Your task to perform on an android device: toggle priority inbox in the gmail app Image 0: 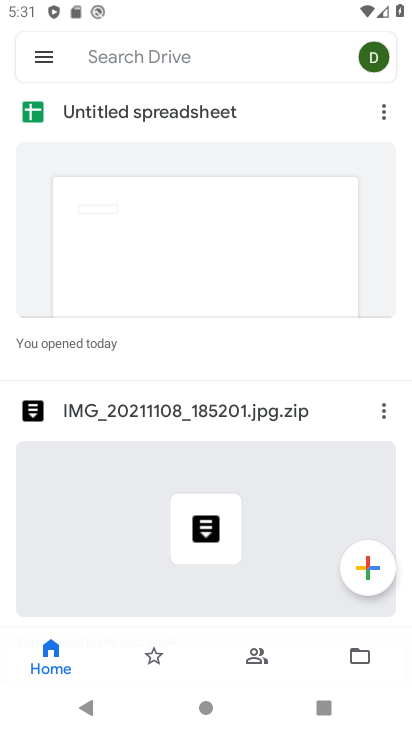
Step 0: press back button
Your task to perform on an android device: toggle priority inbox in the gmail app Image 1: 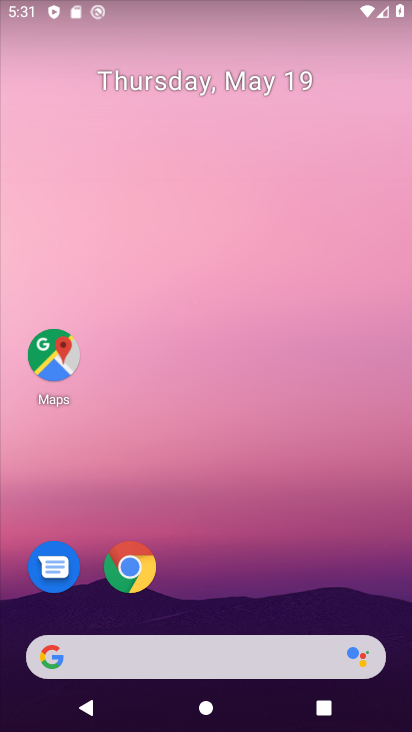
Step 1: drag from (281, 724) to (189, 155)
Your task to perform on an android device: toggle priority inbox in the gmail app Image 2: 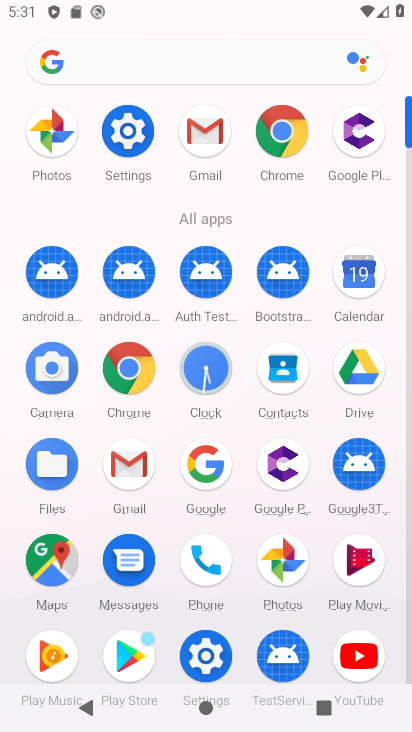
Step 2: click (117, 464)
Your task to perform on an android device: toggle priority inbox in the gmail app Image 3: 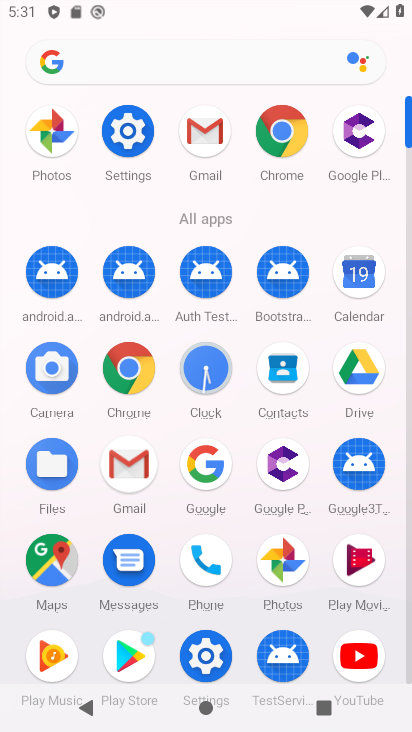
Step 3: click (131, 467)
Your task to perform on an android device: toggle priority inbox in the gmail app Image 4: 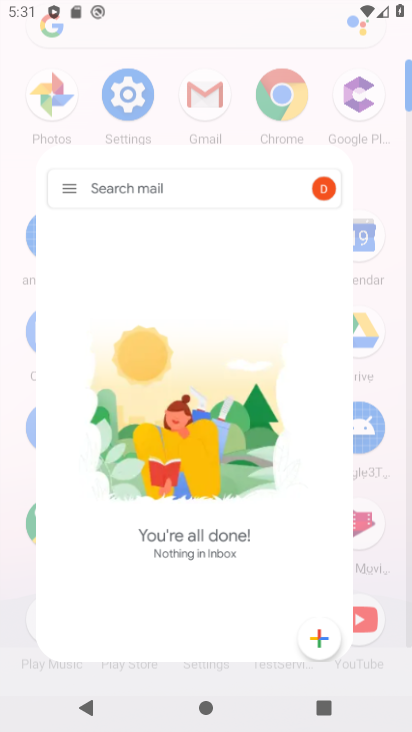
Step 4: click (132, 467)
Your task to perform on an android device: toggle priority inbox in the gmail app Image 5: 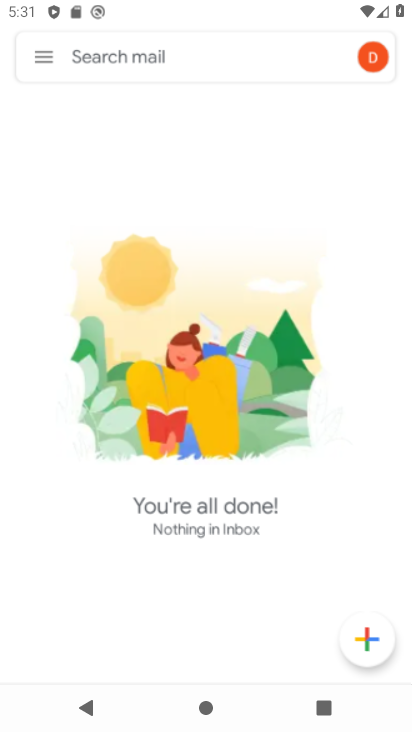
Step 5: click (132, 467)
Your task to perform on an android device: toggle priority inbox in the gmail app Image 6: 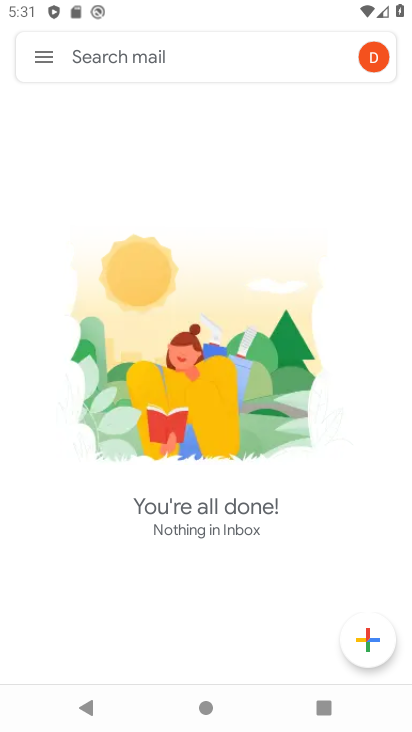
Step 6: click (39, 69)
Your task to perform on an android device: toggle priority inbox in the gmail app Image 7: 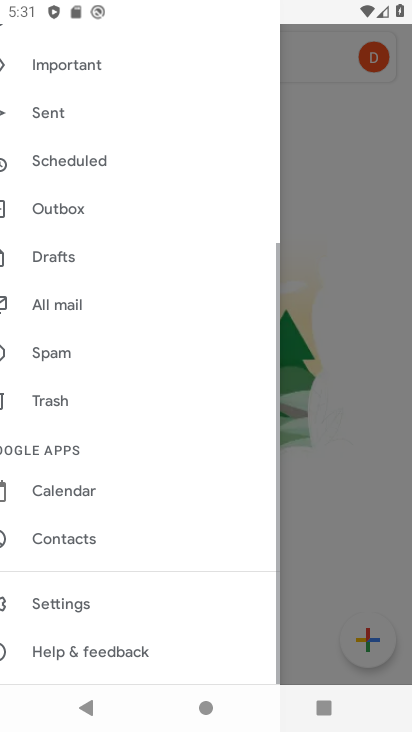
Step 7: click (39, 67)
Your task to perform on an android device: toggle priority inbox in the gmail app Image 8: 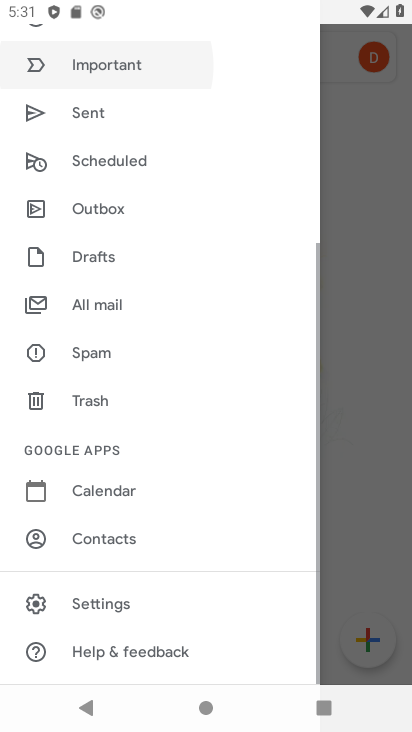
Step 8: drag from (40, 66) to (75, 382)
Your task to perform on an android device: toggle priority inbox in the gmail app Image 9: 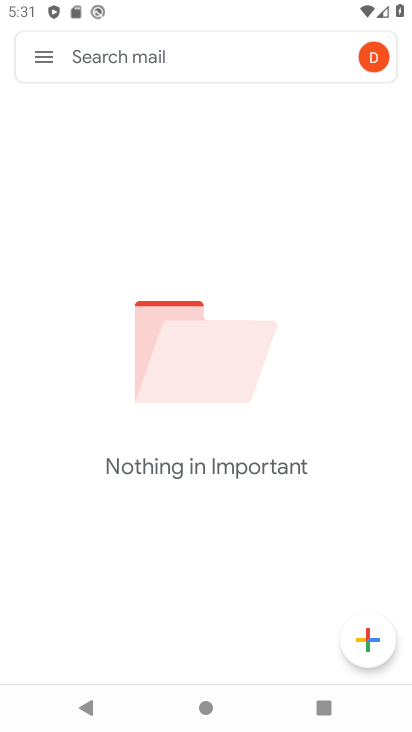
Step 9: click (36, 65)
Your task to perform on an android device: toggle priority inbox in the gmail app Image 10: 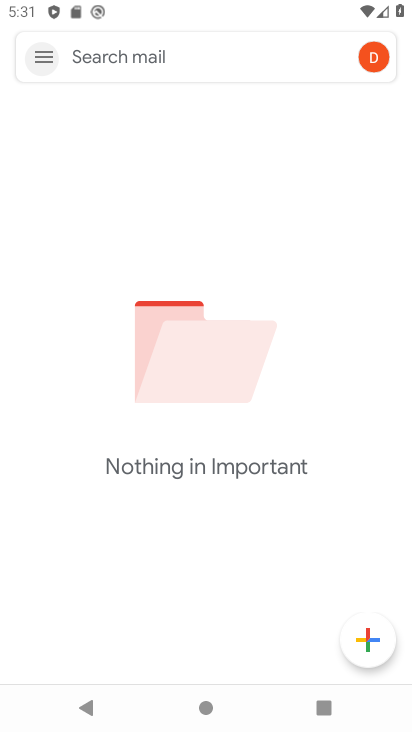
Step 10: click (42, 64)
Your task to perform on an android device: toggle priority inbox in the gmail app Image 11: 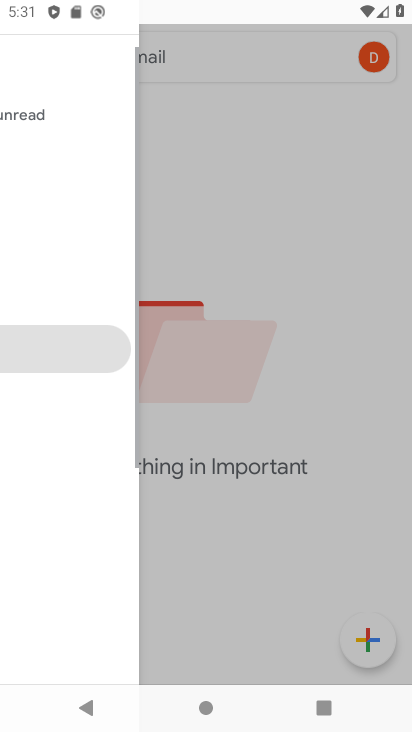
Step 11: click (43, 64)
Your task to perform on an android device: toggle priority inbox in the gmail app Image 12: 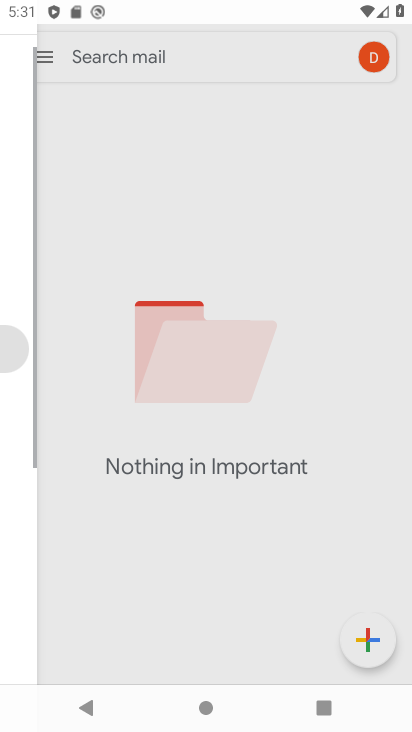
Step 12: click (44, 64)
Your task to perform on an android device: toggle priority inbox in the gmail app Image 13: 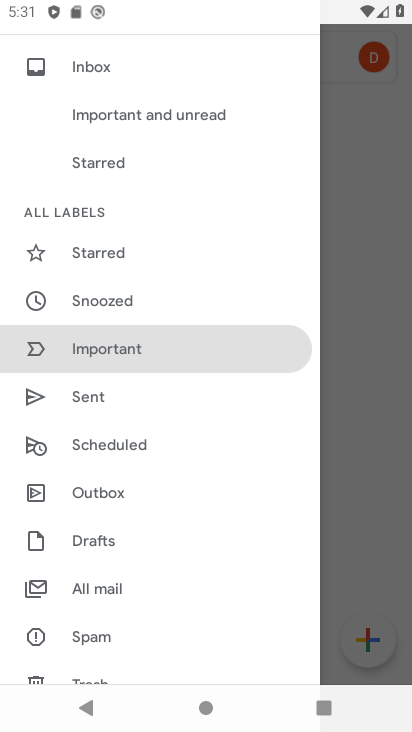
Step 13: drag from (124, 470) to (93, 83)
Your task to perform on an android device: toggle priority inbox in the gmail app Image 14: 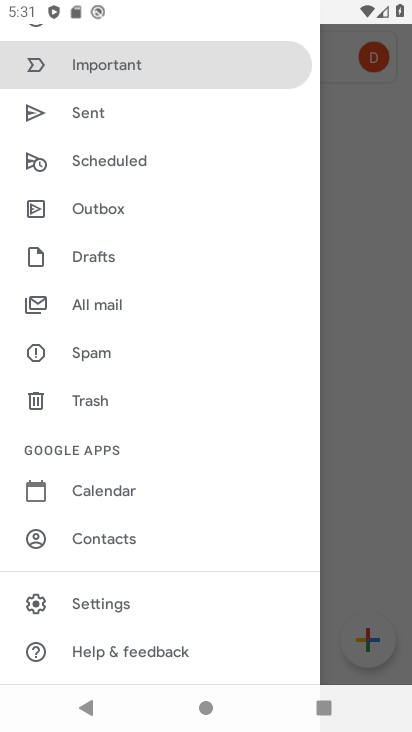
Step 14: click (116, 601)
Your task to perform on an android device: toggle priority inbox in the gmail app Image 15: 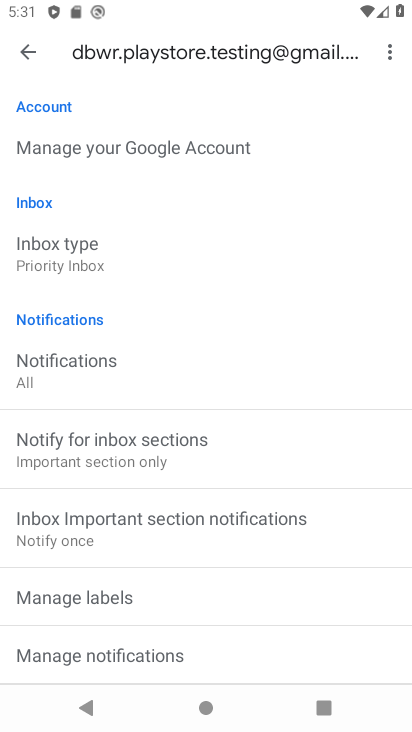
Step 15: click (63, 259)
Your task to perform on an android device: toggle priority inbox in the gmail app Image 16: 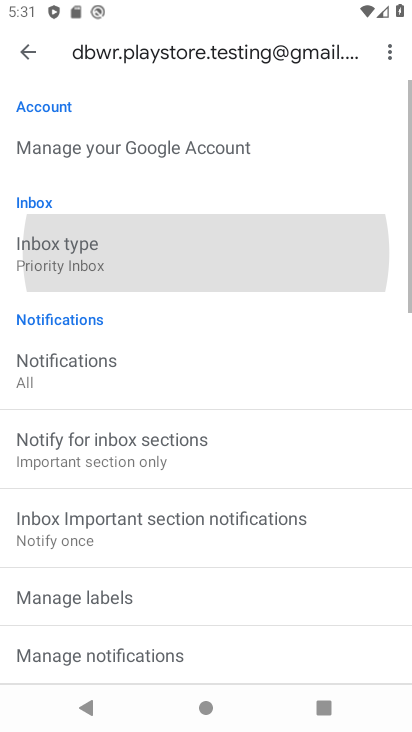
Step 16: click (73, 259)
Your task to perform on an android device: toggle priority inbox in the gmail app Image 17: 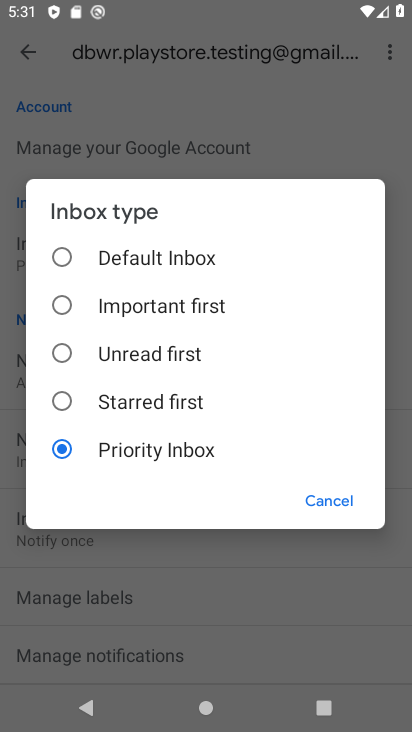
Step 17: click (327, 501)
Your task to perform on an android device: toggle priority inbox in the gmail app Image 18: 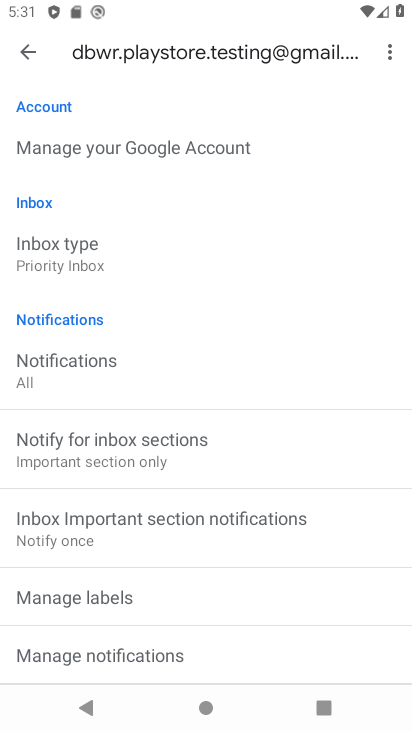
Step 18: click (23, 53)
Your task to perform on an android device: toggle priority inbox in the gmail app Image 19: 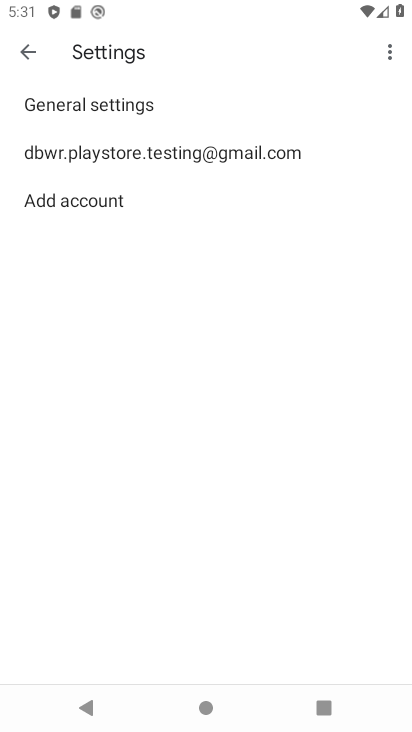
Step 19: press back button
Your task to perform on an android device: toggle priority inbox in the gmail app Image 20: 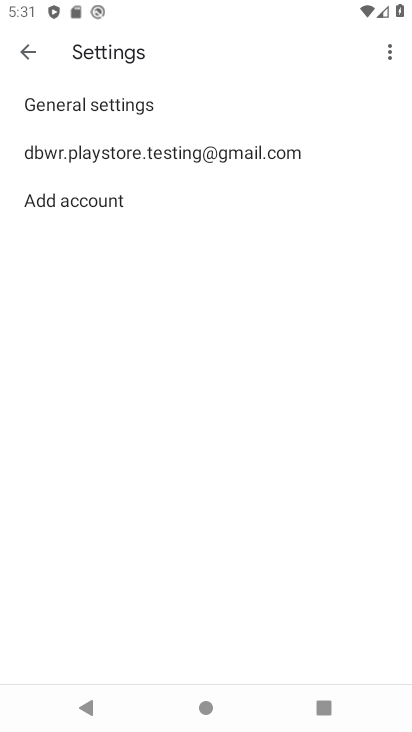
Step 20: press back button
Your task to perform on an android device: toggle priority inbox in the gmail app Image 21: 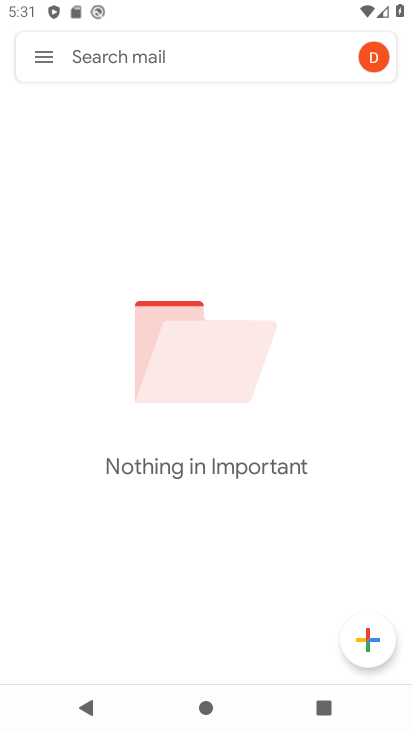
Step 21: press back button
Your task to perform on an android device: toggle priority inbox in the gmail app Image 22: 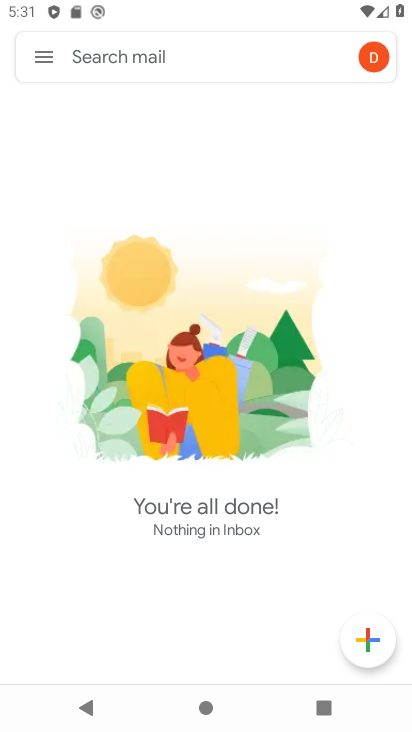
Step 22: press back button
Your task to perform on an android device: toggle priority inbox in the gmail app Image 23: 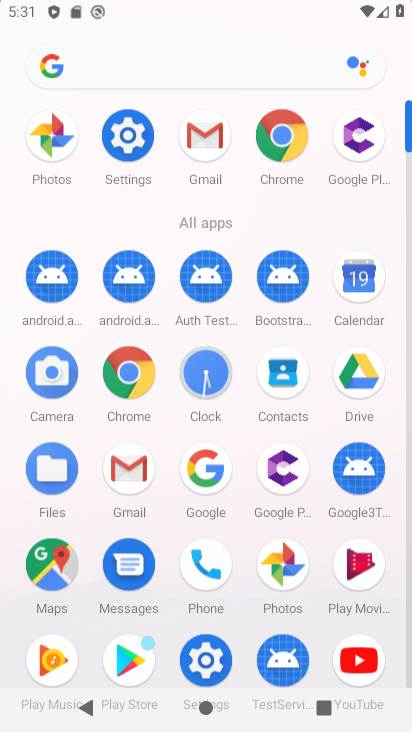
Step 23: press back button
Your task to perform on an android device: toggle priority inbox in the gmail app Image 24: 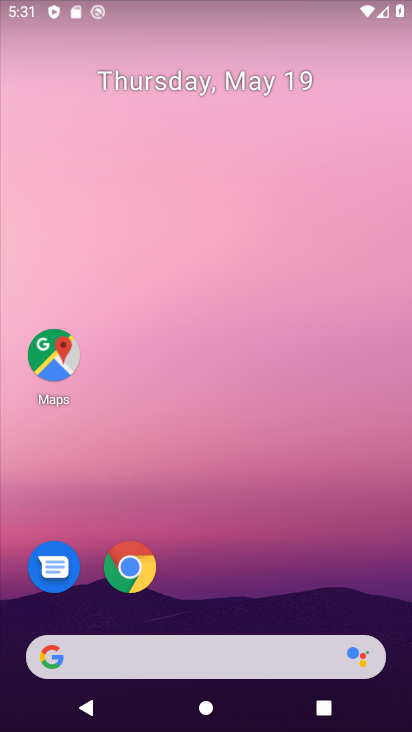
Step 24: drag from (244, 645) to (228, 183)
Your task to perform on an android device: toggle priority inbox in the gmail app Image 25: 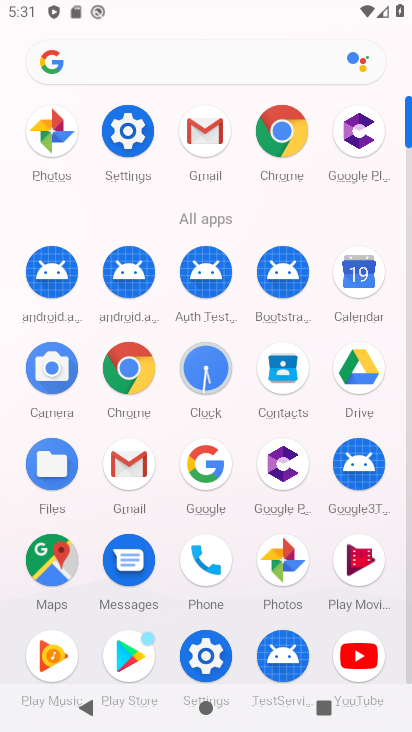
Step 25: click (200, 155)
Your task to perform on an android device: toggle priority inbox in the gmail app Image 26: 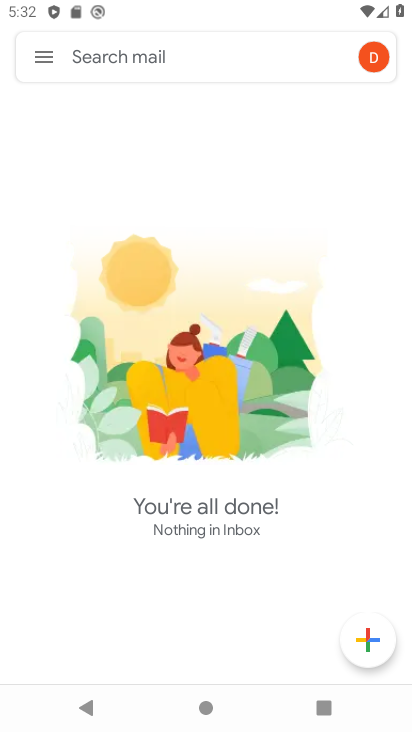
Step 26: click (39, 71)
Your task to perform on an android device: toggle priority inbox in the gmail app Image 27: 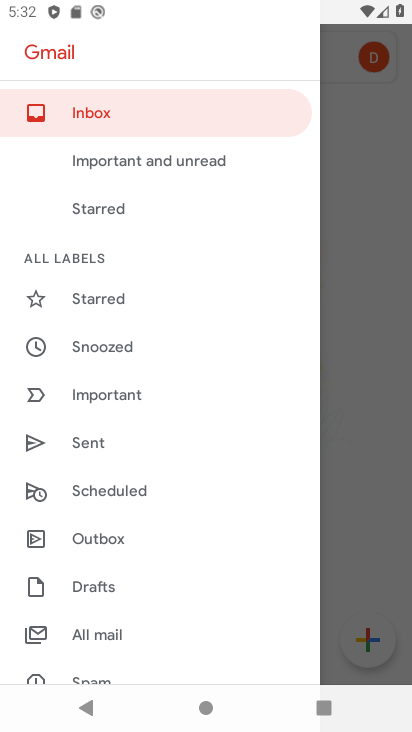
Step 27: drag from (85, 474) to (183, 88)
Your task to perform on an android device: toggle priority inbox in the gmail app Image 28: 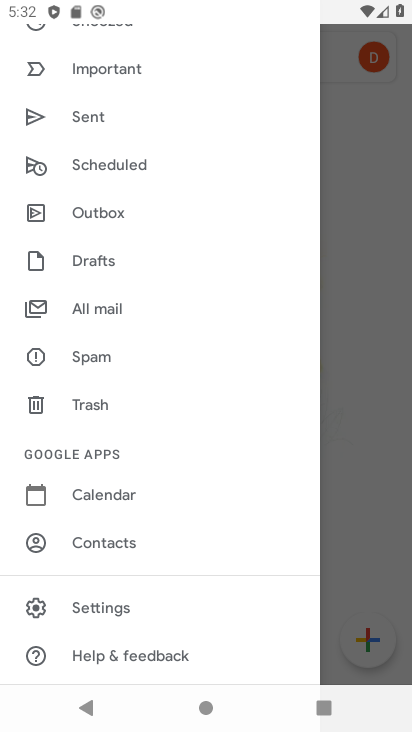
Step 28: click (106, 620)
Your task to perform on an android device: toggle priority inbox in the gmail app Image 29: 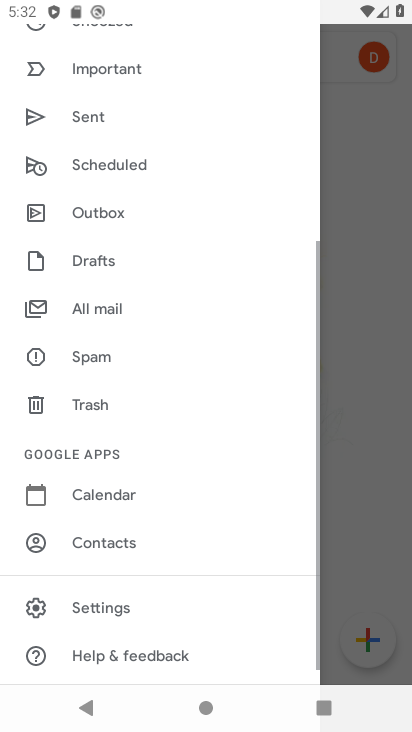
Step 29: click (103, 616)
Your task to perform on an android device: toggle priority inbox in the gmail app Image 30: 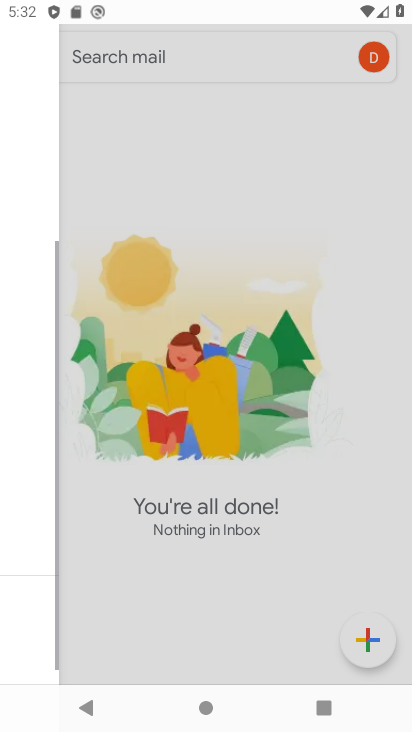
Step 30: click (103, 616)
Your task to perform on an android device: toggle priority inbox in the gmail app Image 31: 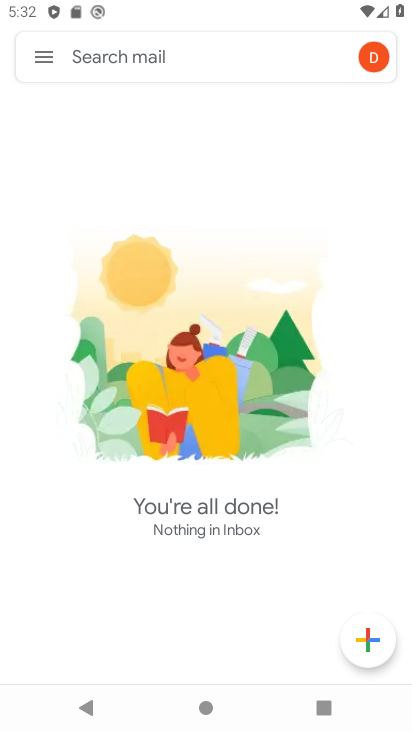
Step 31: click (105, 614)
Your task to perform on an android device: toggle priority inbox in the gmail app Image 32: 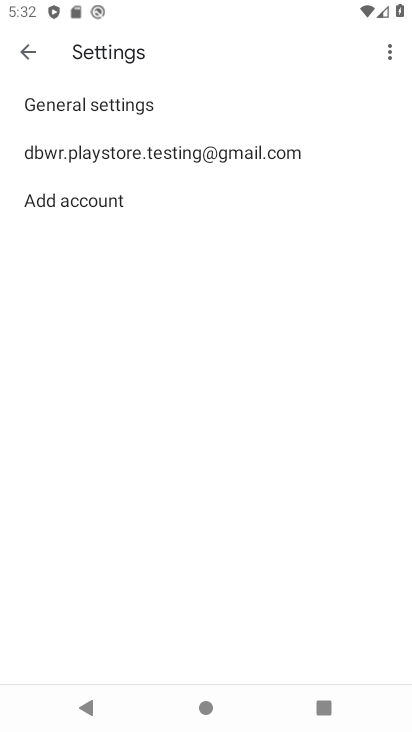
Step 32: click (175, 136)
Your task to perform on an android device: toggle priority inbox in the gmail app Image 33: 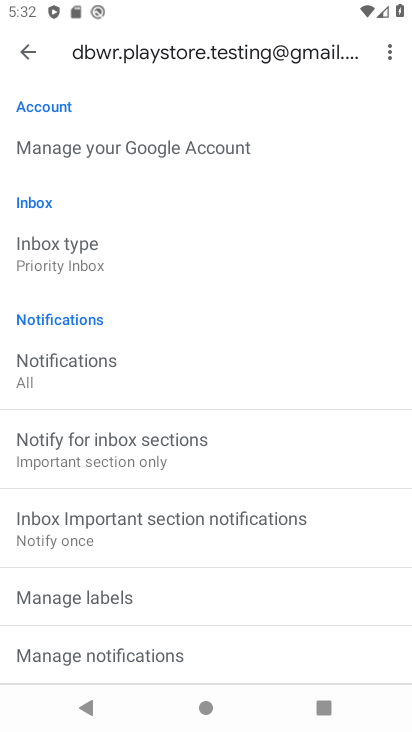
Step 33: press home button
Your task to perform on an android device: toggle priority inbox in the gmail app Image 34: 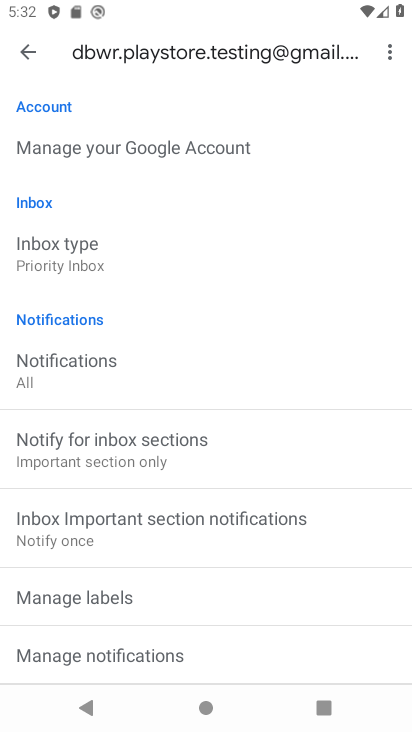
Step 34: press home button
Your task to perform on an android device: toggle priority inbox in the gmail app Image 35: 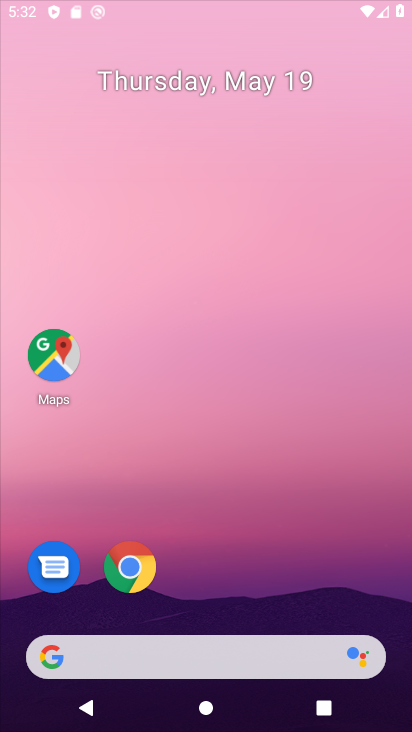
Step 35: press home button
Your task to perform on an android device: toggle priority inbox in the gmail app Image 36: 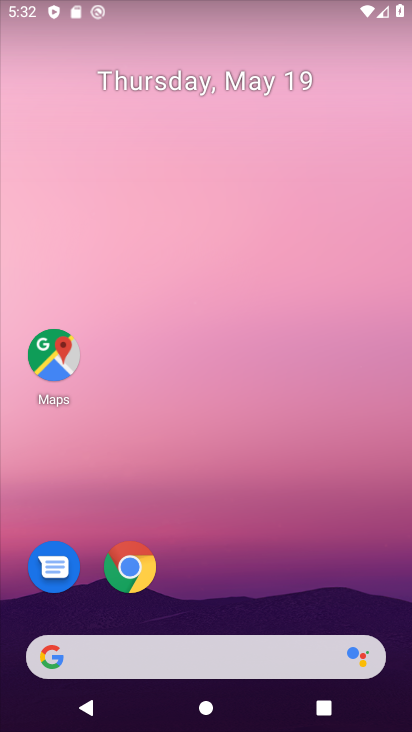
Step 36: click (25, 48)
Your task to perform on an android device: toggle priority inbox in the gmail app Image 37: 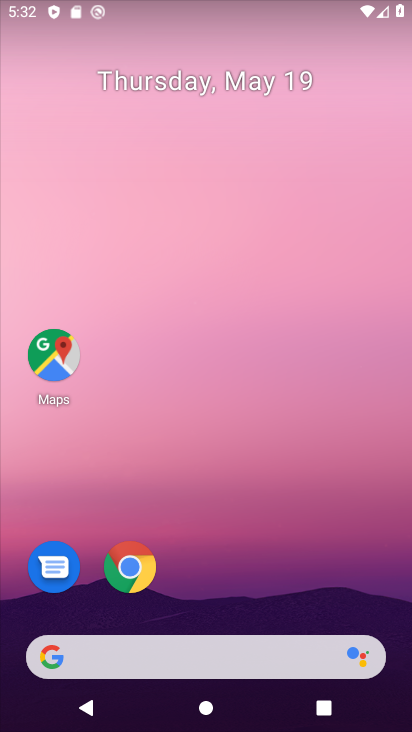
Step 37: click (247, 72)
Your task to perform on an android device: toggle priority inbox in the gmail app Image 38: 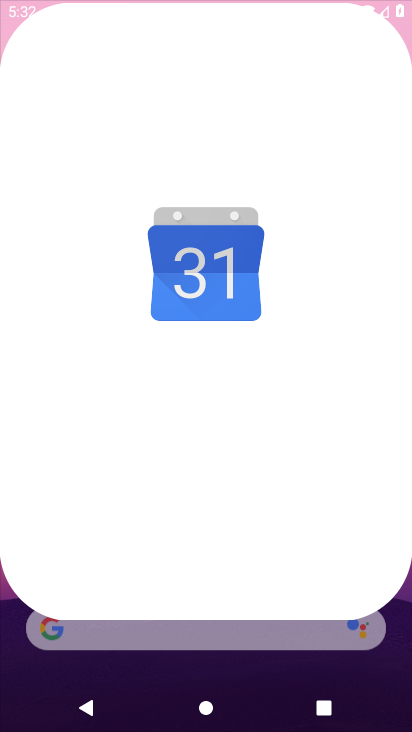
Step 38: drag from (289, 603) to (200, 14)
Your task to perform on an android device: toggle priority inbox in the gmail app Image 39: 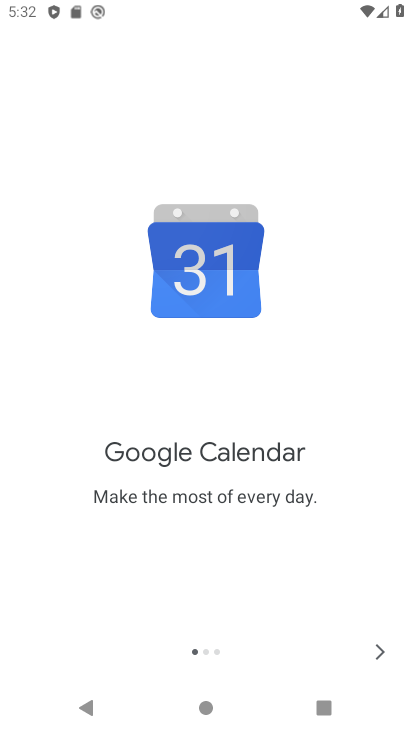
Step 39: click (376, 646)
Your task to perform on an android device: toggle priority inbox in the gmail app Image 40: 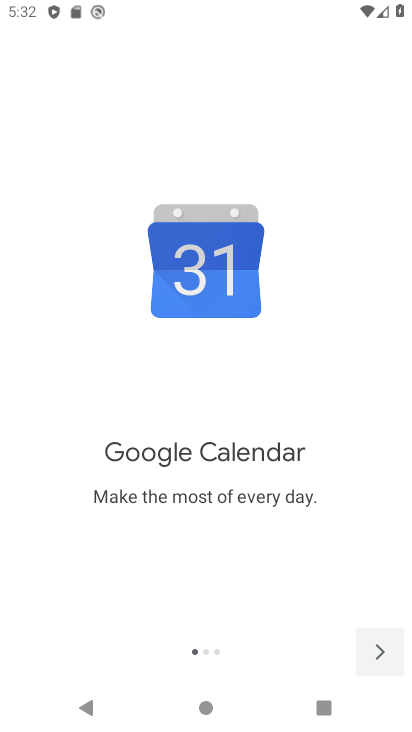
Step 40: click (377, 647)
Your task to perform on an android device: toggle priority inbox in the gmail app Image 41: 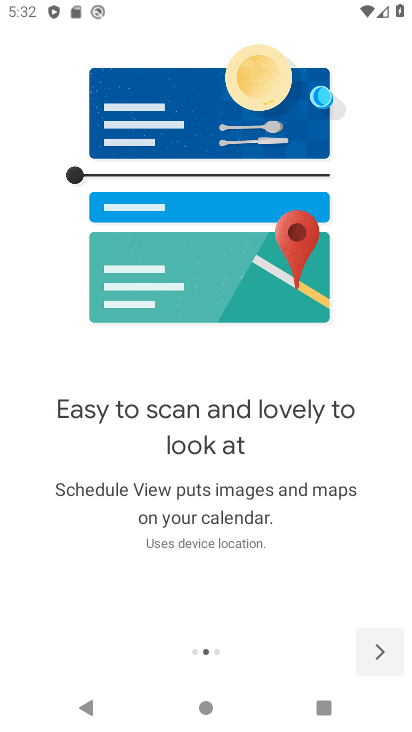
Step 41: click (377, 647)
Your task to perform on an android device: toggle priority inbox in the gmail app Image 42: 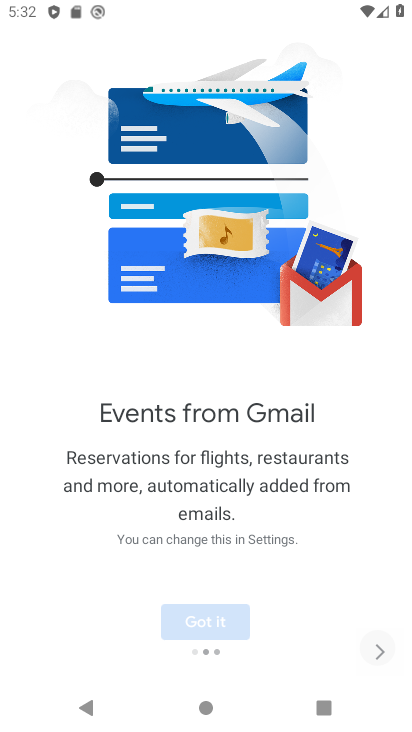
Step 42: click (377, 647)
Your task to perform on an android device: toggle priority inbox in the gmail app Image 43: 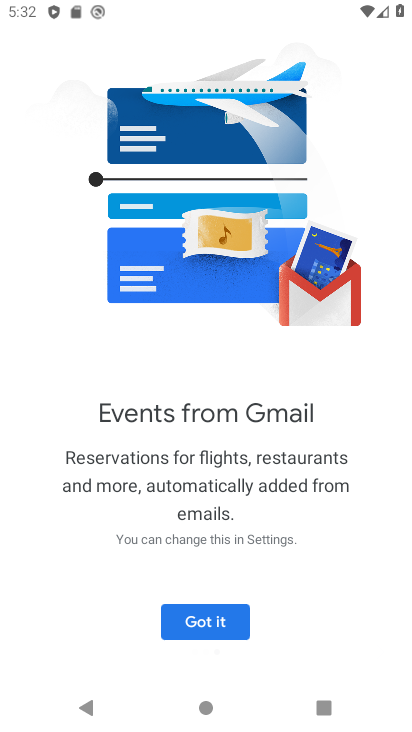
Step 43: click (377, 647)
Your task to perform on an android device: toggle priority inbox in the gmail app Image 44: 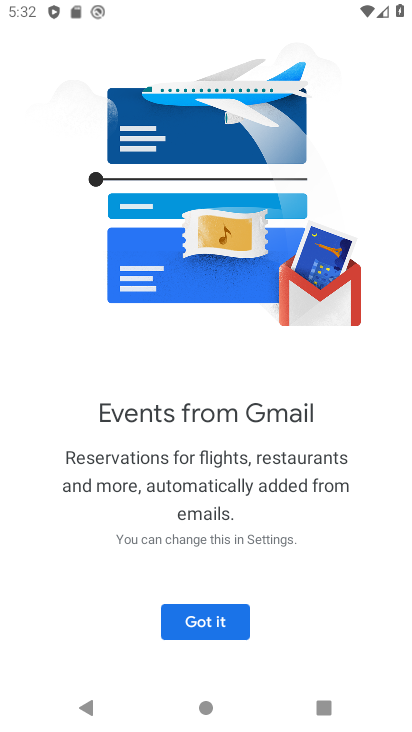
Step 44: click (377, 647)
Your task to perform on an android device: toggle priority inbox in the gmail app Image 45: 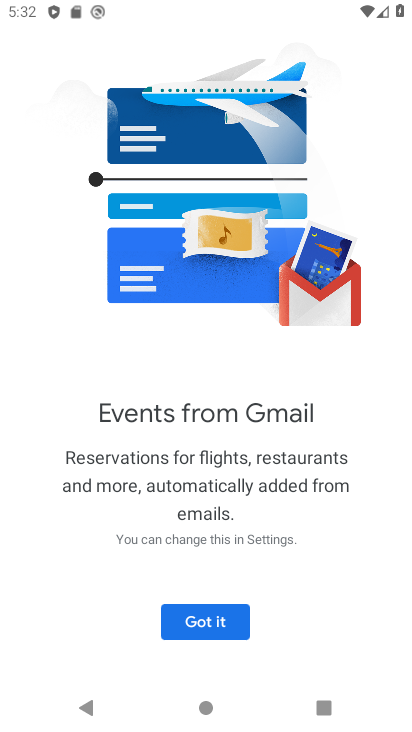
Step 45: click (380, 645)
Your task to perform on an android device: toggle priority inbox in the gmail app Image 46: 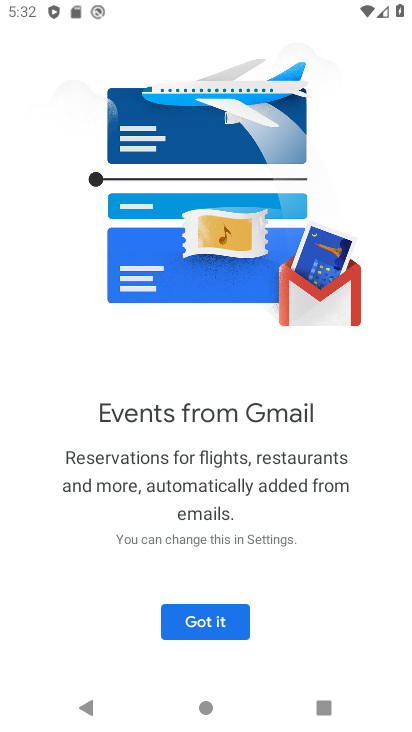
Step 46: click (382, 644)
Your task to perform on an android device: toggle priority inbox in the gmail app Image 47: 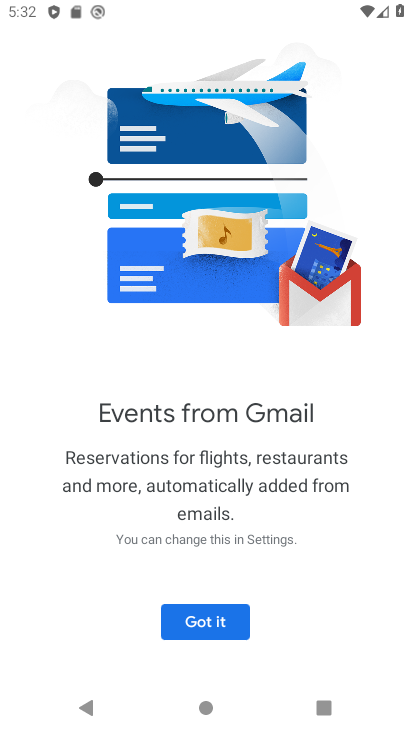
Step 47: click (188, 620)
Your task to perform on an android device: toggle priority inbox in the gmail app Image 48: 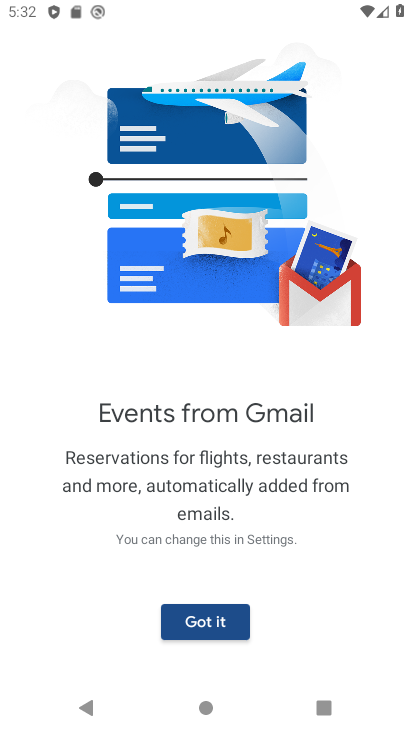
Step 48: click (199, 604)
Your task to perform on an android device: toggle priority inbox in the gmail app Image 49: 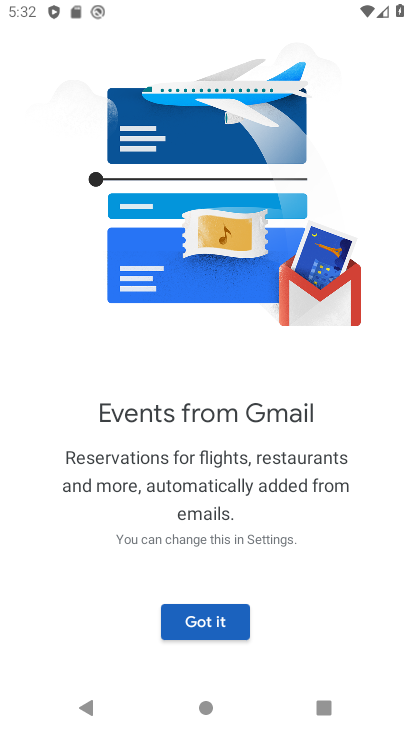
Step 49: click (199, 604)
Your task to perform on an android device: toggle priority inbox in the gmail app Image 50: 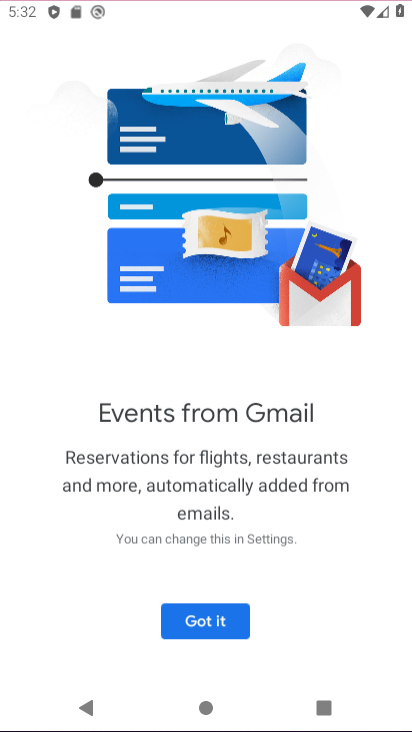
Step 50: click (203, 604)
Your task to perform on an android device: toggle priority inbox in the gmail app Image 51: 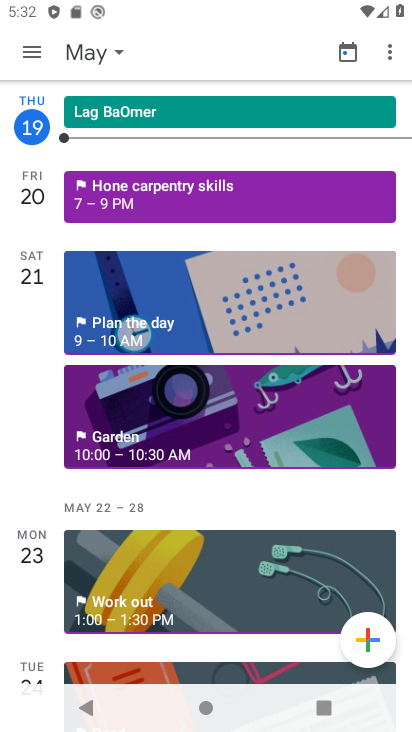
Step 51: press back button
Your task to perform on an android device: toggle priority inbox in the gmail app Image 52: 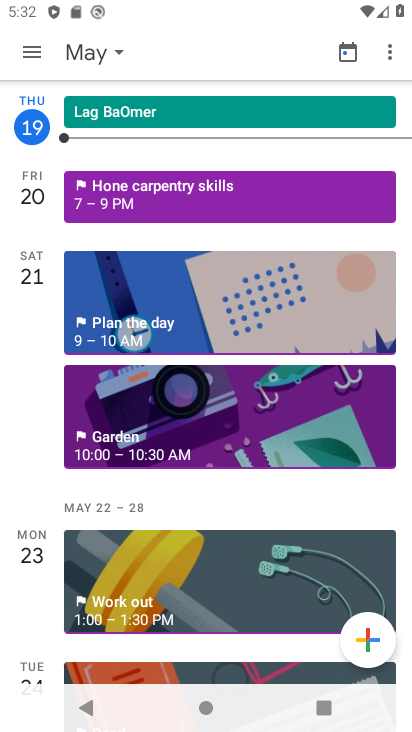
Step 52: press back button
Your task to perform on an android device: toggle priority inbox in the gmail app Image 53: 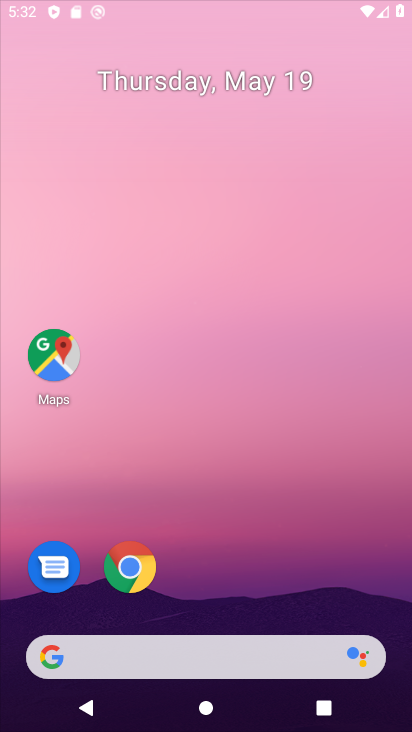
Step 53: press back button
Your task to perform on an android device: toggle priority inbox in the gmail app Image 54: 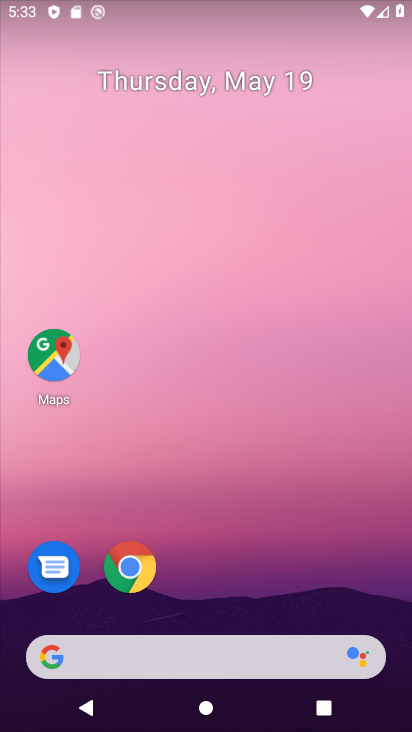
Step 54: drag from (246, 721) to (180, 84)
Your task to perform on an android device: toggle priority inbox in the gmail app Image 55: 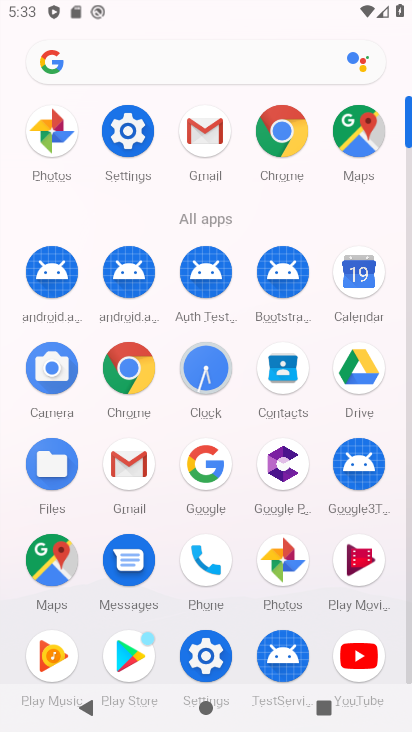
Step 55: click (127, 463)
Your task to perform on an android device: toggle priority inbox in the gmail app Image 56: 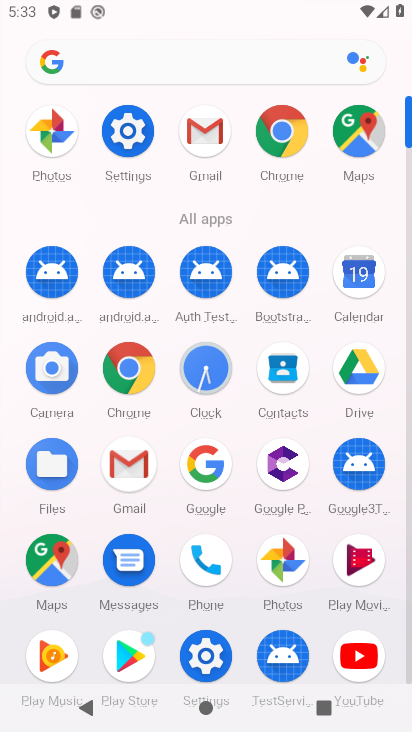
Step 56: click (131, 463)
Your task to perform on an android device: toggle priority inbox in the gmail app Image 57: 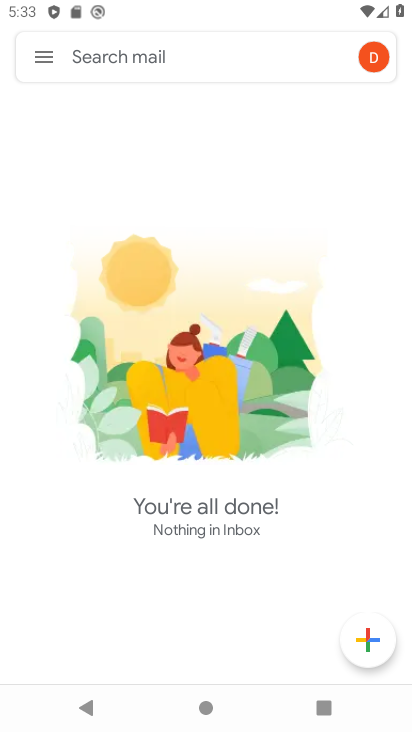
Step 57: click (53, 56)
Your task to perform on an android device: toggle priority inbox in the gmail app Image 58: 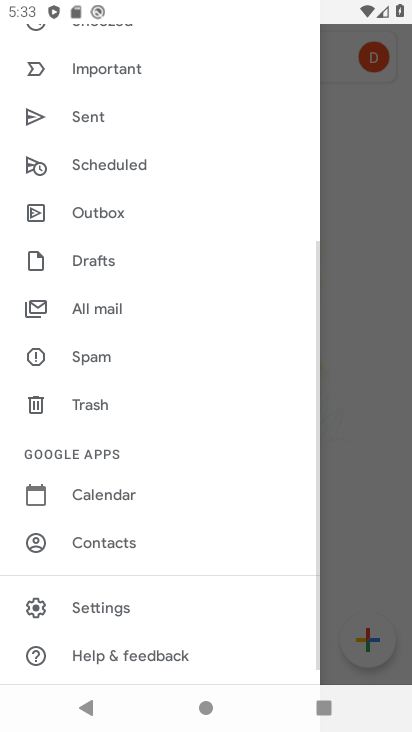
Step 58: click (123, 588)
Your task to perform on an android device: toggle priority inbox in the gmail app Image 59: 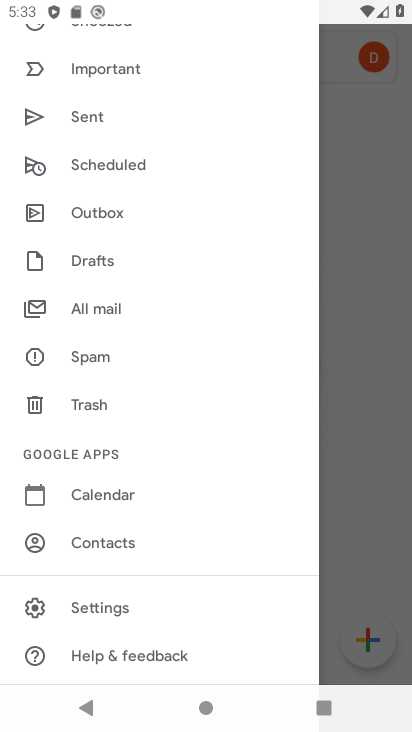
Step 59: click (111, 609)
Your task to perform on an android device: toggle priority inbox in the gmail app Image 60: 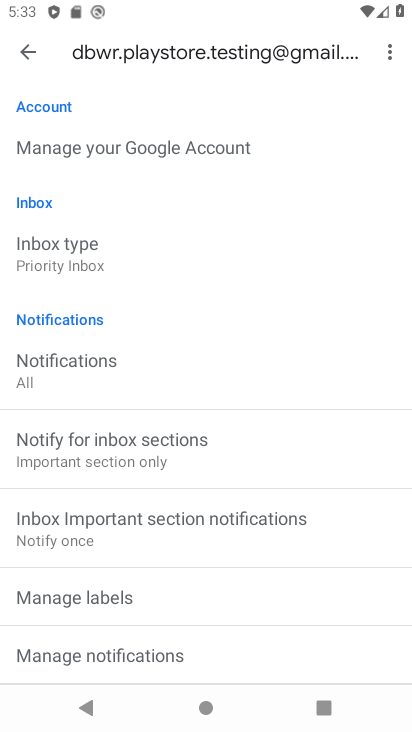
Step 60: task complete